Your task to perform on an android device: change keyboard looks Image 0: 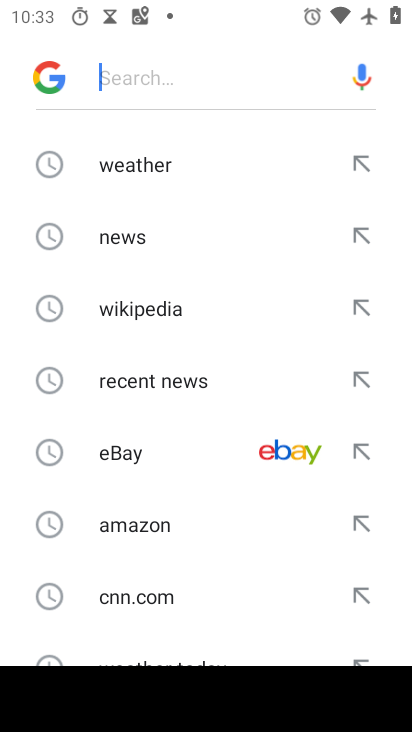
Step 0: press home button
Your task to perform on an android device: change keyboard looks Image 1: 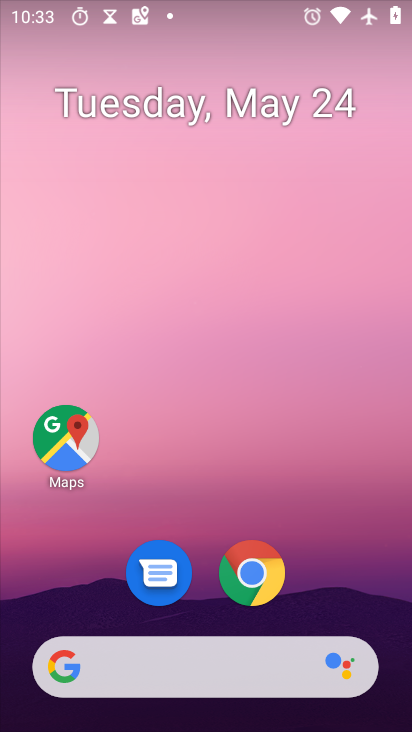
Step 1: drag from (378, 616) to (282, 7)
Your task to perform on an android device: change keyboard looks Image 2: 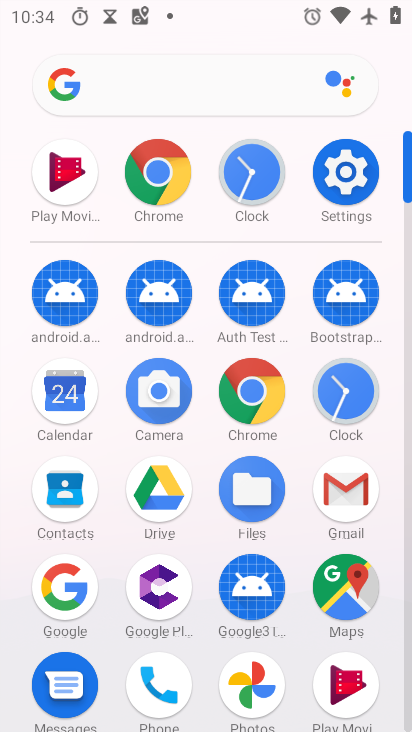
Step 2: click (344, 178)
Your task to perform on an android device: change keyboard looks Image 3: 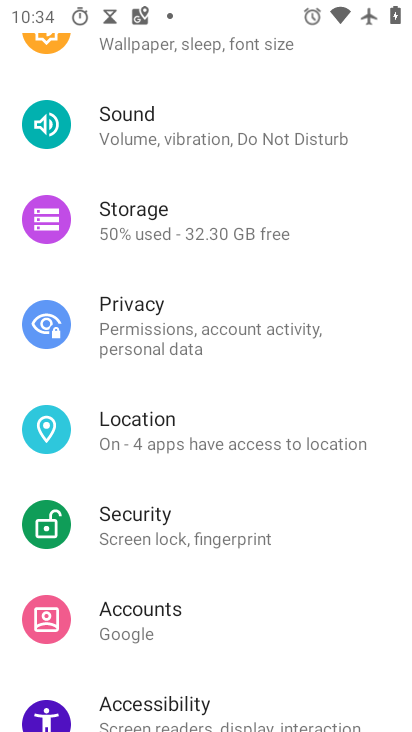
Step 3: drag from (211, 636) to (260, 105)
Your task to perform on an android device: change keyboard looks Image 4: 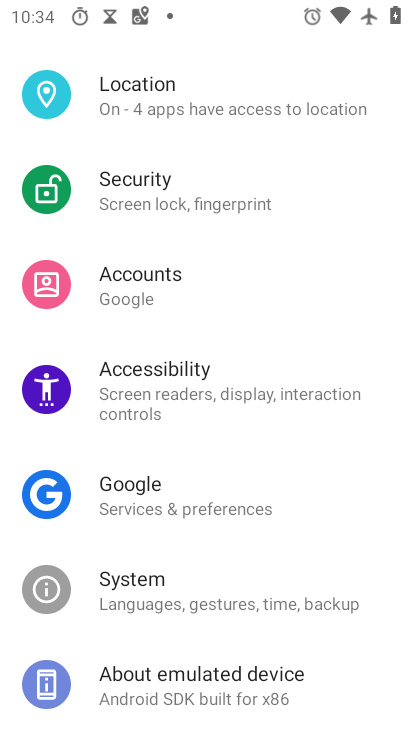
Step 4: drag from (155, 606) to (204, 216)
Your task to perform on an android device: change keyboard looks Image 5: 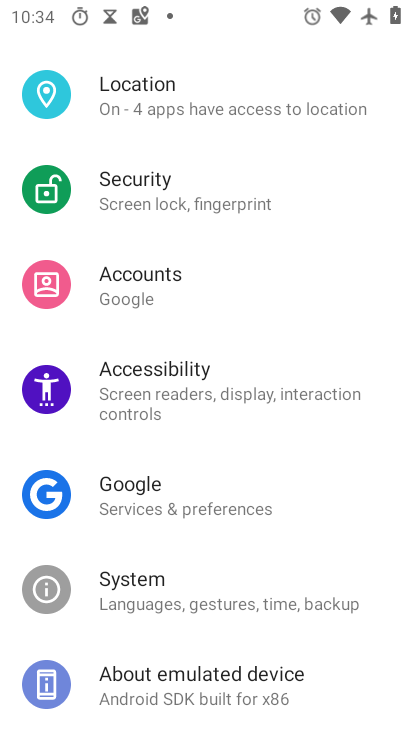
Step 5: click (167, 601)
Your task to perform on an android device: change keyboard looks Image 6: 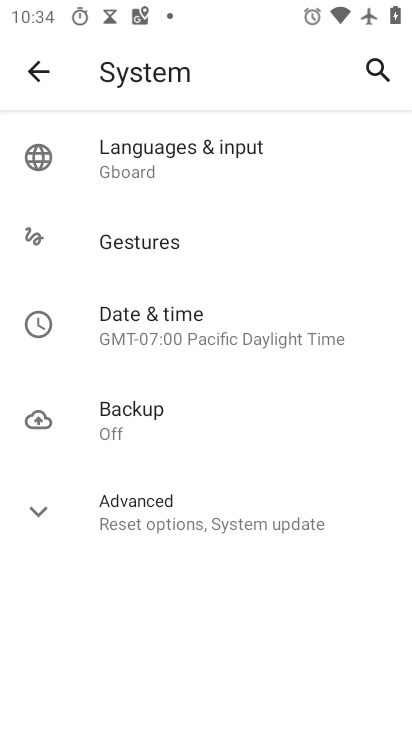
Step 6: click (149, 155)
Your task to perform on an android device: change keyboard looks Image 7: 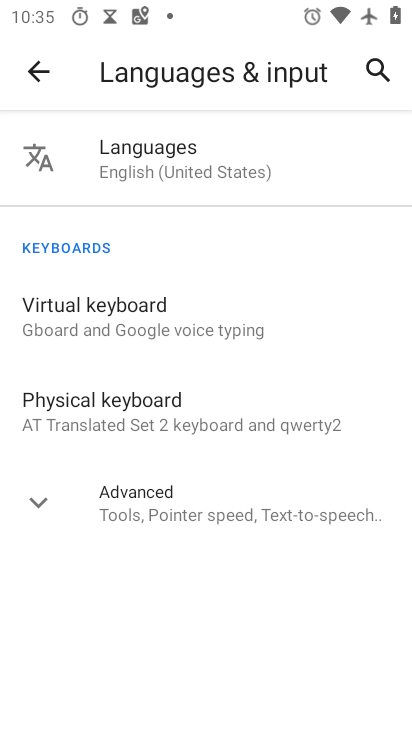
Step 7: click (120, 328)
Your task to perform on an android device: change keyboard looks Image 8: 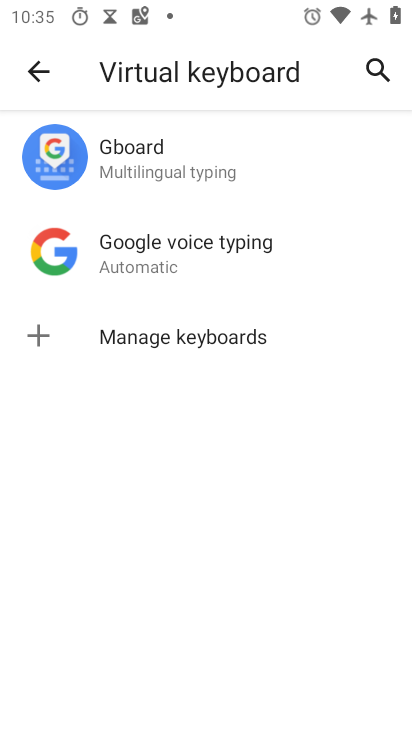
Step 8: click (152, 160)
Your task to perform on an android device: change keyboard looks Image 9: 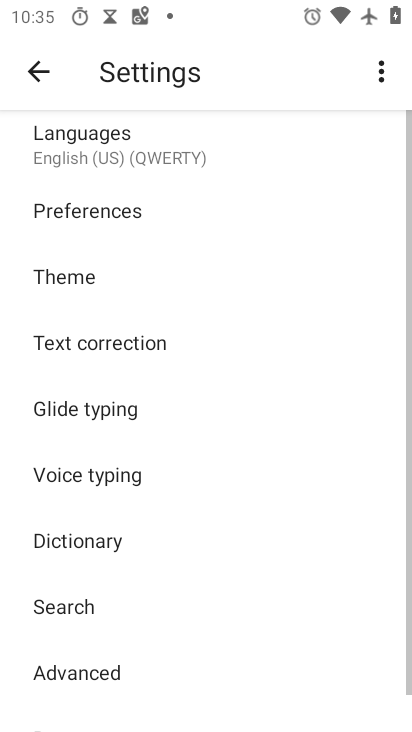
Step 9: click (56, 278)
Your task to perform on an android device: change keyboard looks Image 10: 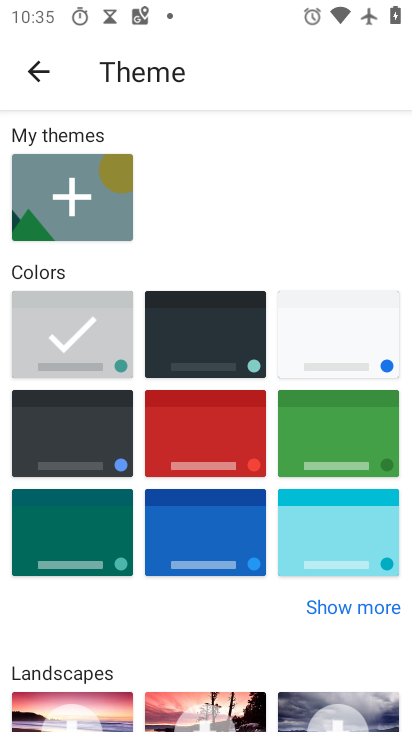
Step 10: click (190, 340)
Your task to perform on an android device: change keyboard looks Image 11: 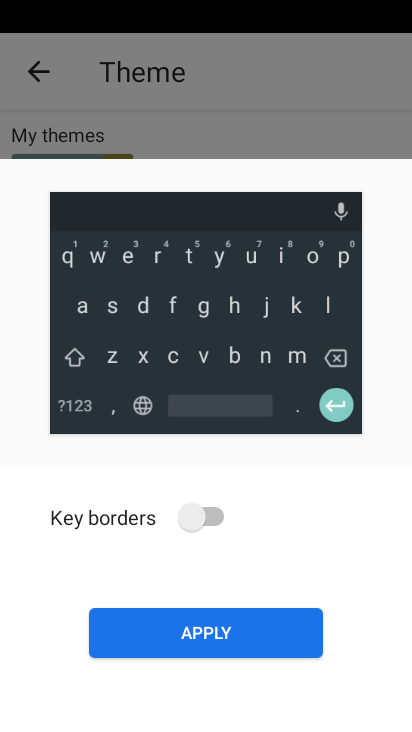
Step 11: click (216, 628)
Your task to perform on an android device: change keyboard looks Image 12: 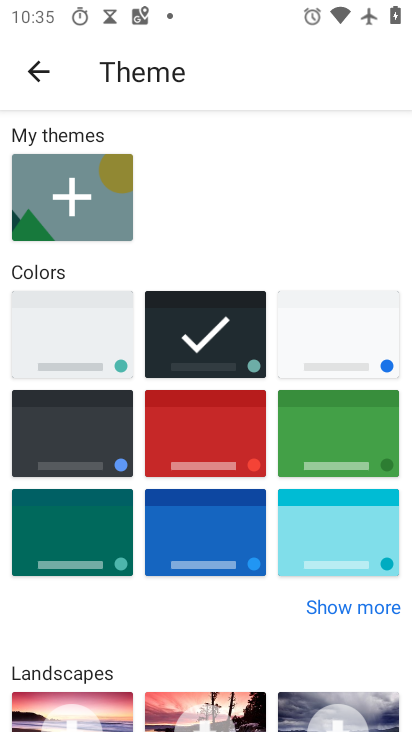
Step 12: task complete